Your task to perform on an android device: Go to Maps Image 0: 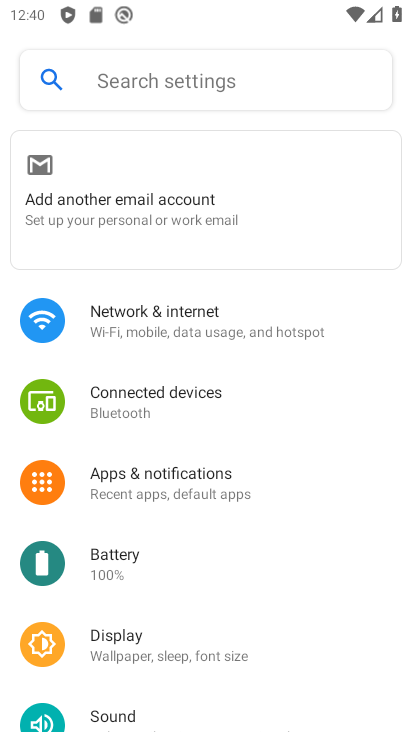
Step 0: press home button
Your task to perform on an android device: Go to Maps Image 1: 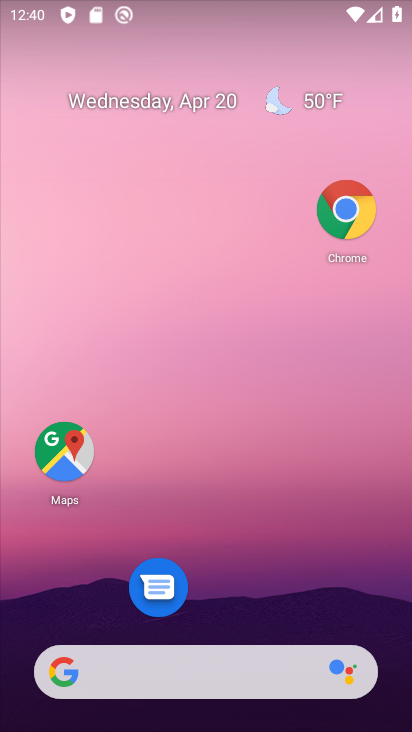
Step 1: click (66, 469)
Your task to perform on an android device: Go to Maps Image 2: 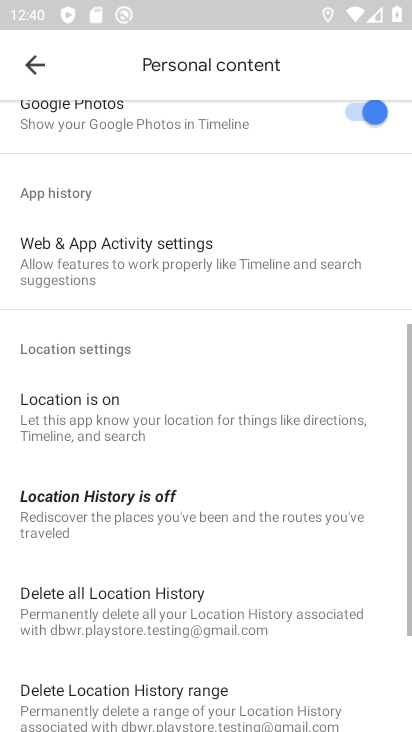
Step 2: click (31, 71)
Your task to perform on an android device: Go to Maps Image 3: 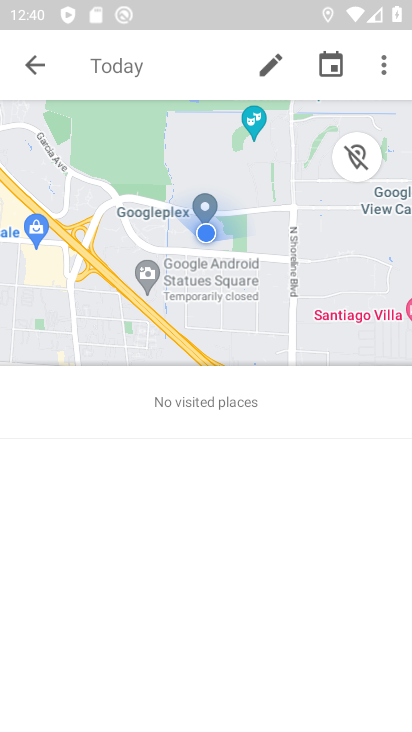
Step 3: click (31, 71)
Your task to perform on an android device: Go to Maps Image 4: 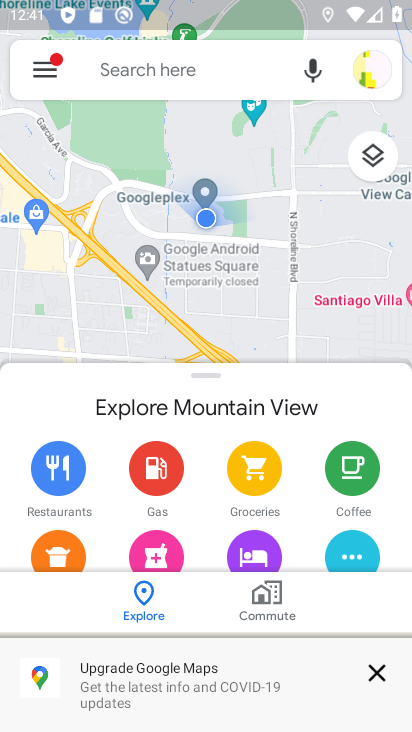
Step 4: task complete